Your task to perform on an android device: toggle wifi Image 0: 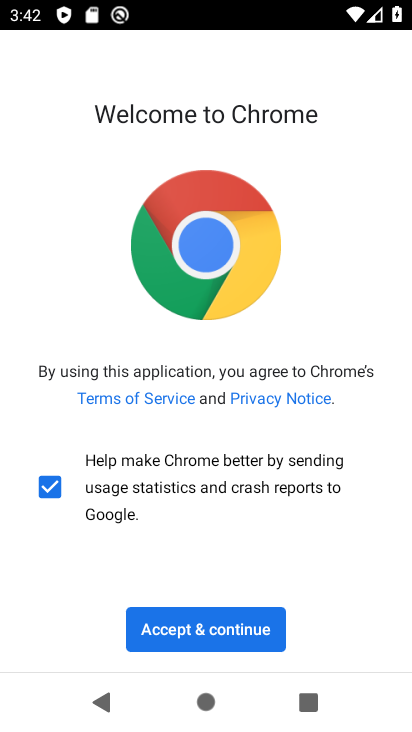
Step 0: press home button
Your task to perform on an android device: toggle wifi Image 1: 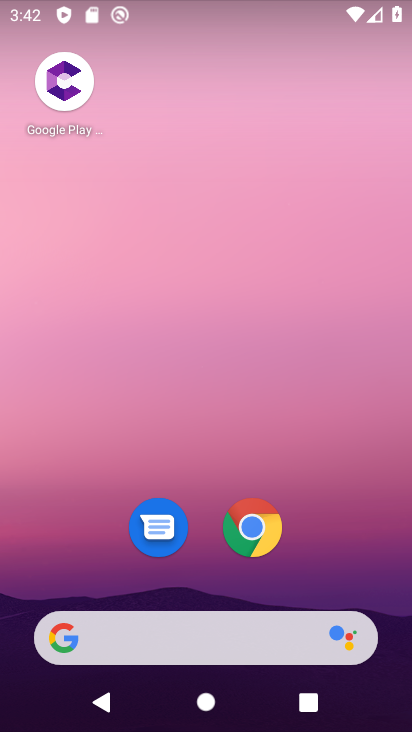
Step 1: drag from (273, 658) to (309, 92)
Your task to perform on an android device: toggle wifi Image 2: 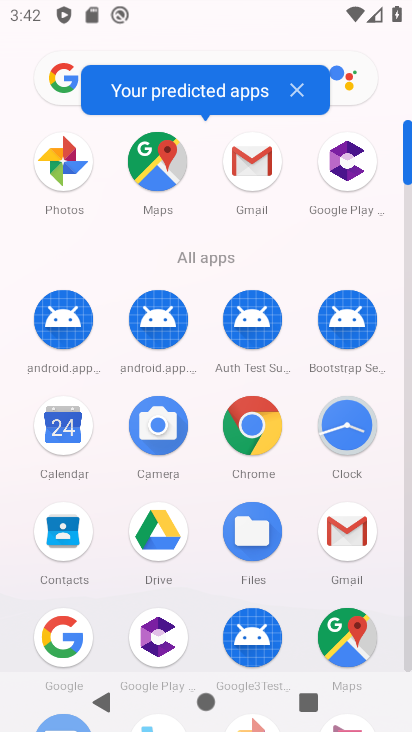
Step 2: drag from (186, 570) to (209, 235)
Your task to perform on an android device: toggle wifi Image 3: 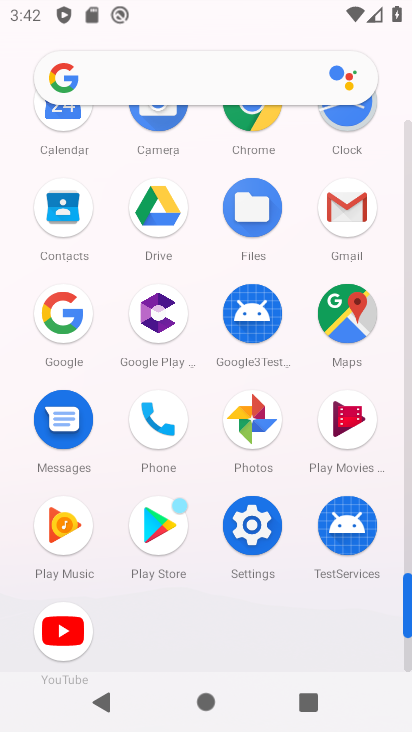
Step 3: click (248, 540)
Your task to perform on an android device: toggle wifi Image 4: 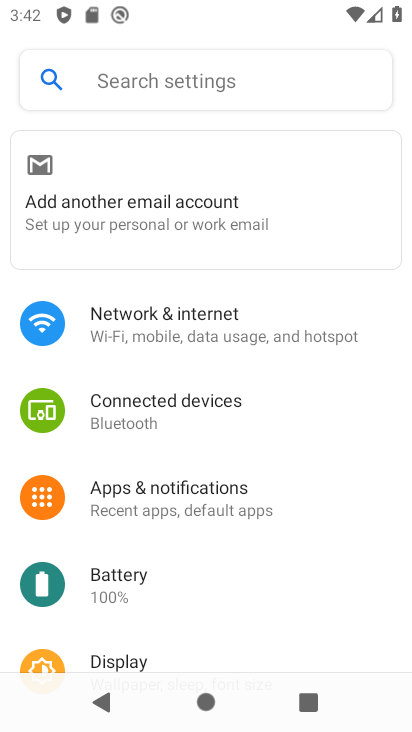
Step 4: click (190, 332)
Your task to perform on an android device: toggle wifi Image 5: 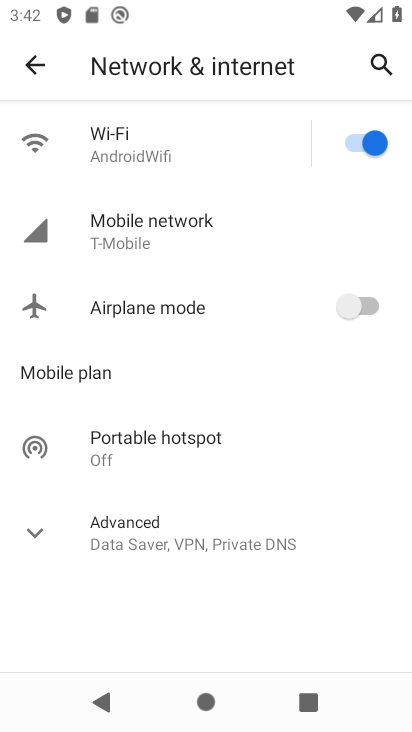
Step 5: task complete